Your task to perform on an android device: Open Android settings Image 0: 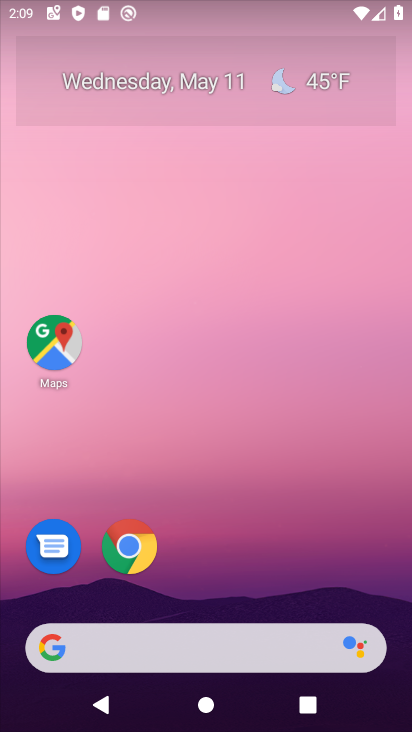
Step 0: drag from (234, 573) to (255, 38)
Your task to perform on an android device: Open Android settings Image 1: 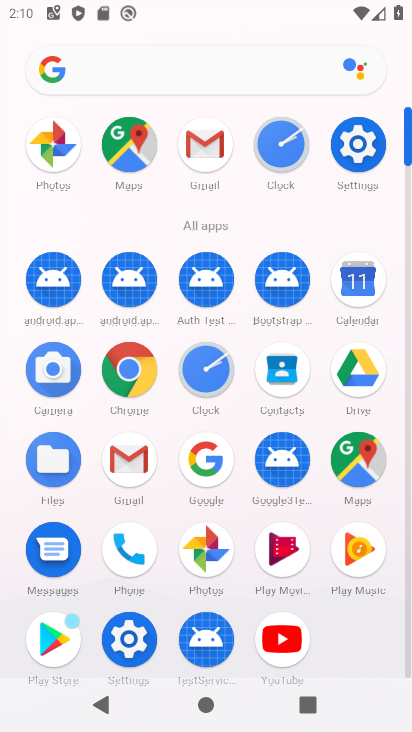
Step 1: click (145, 646)
Your task to perform on an android device: Open Android settings Image 2: 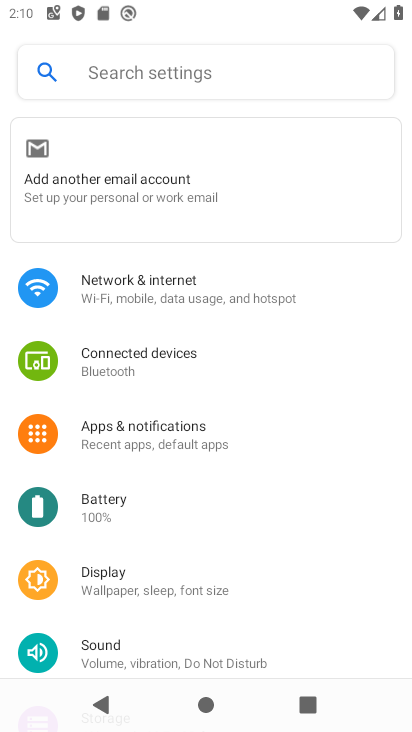
Step 2: drag from (133, 613) to (230, 135)
Your task to perform on an android device: Open Android settings Image 3: 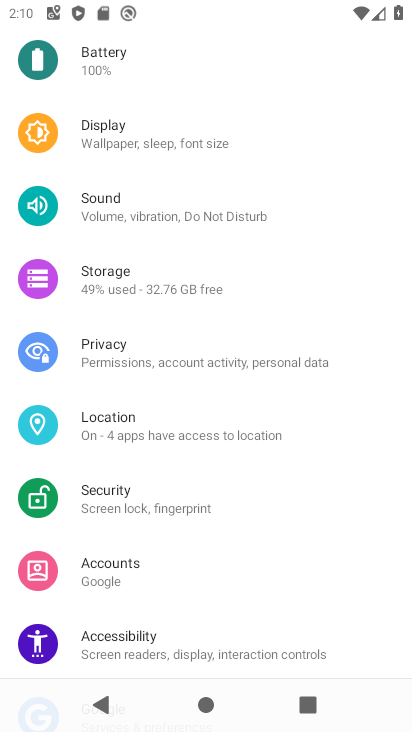
Step 3: drag from (166, 605) to (235, 112)
Your task to perform on an android device: Open Android settings Image 4: 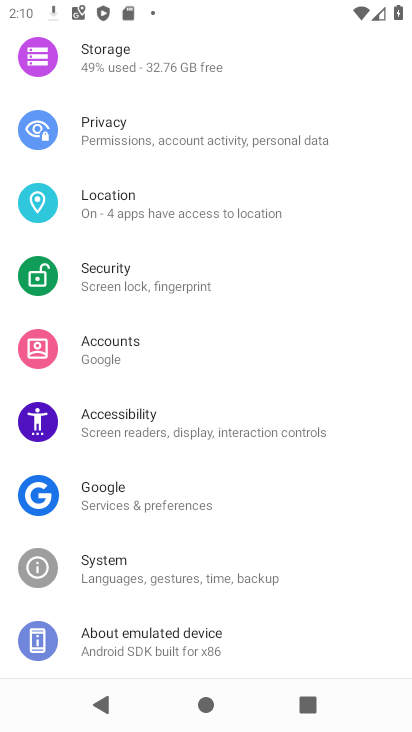
Step 4: click (154, 656)
Your task to perform on an android device: Open Android settings Image 5: 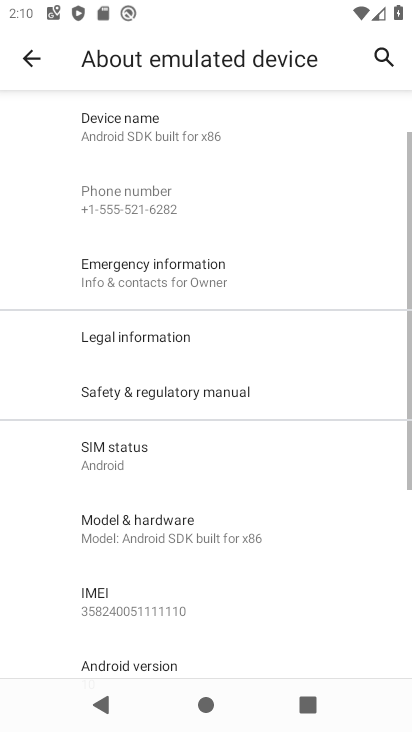
Step 5: drag from (140, 538) to (186, 261)
Your task to perform on an android device: Open Android settings Image 6: 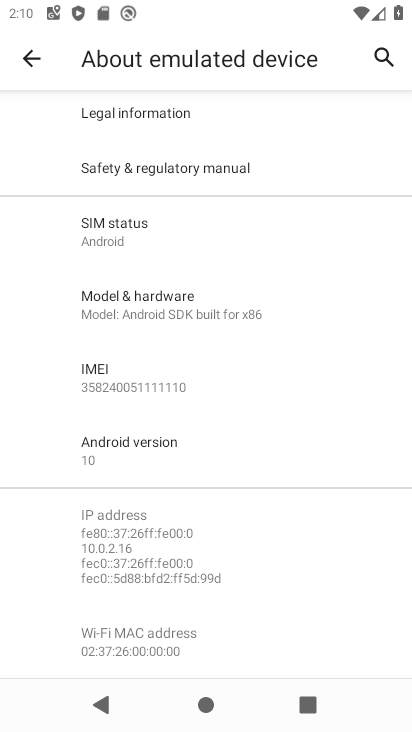
Step 6: click (116, 452)
Your task to perform on an android device: Open Android settings Image 7: 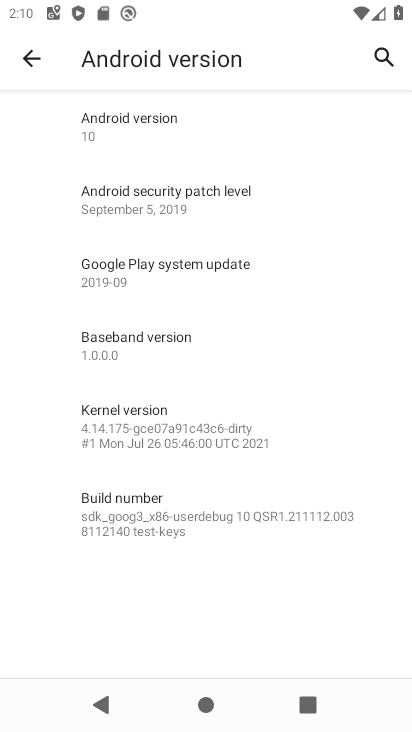
Step 7: task complete